Your task to perform on an android device: turn on priority inbox in the gmail app Image 0: 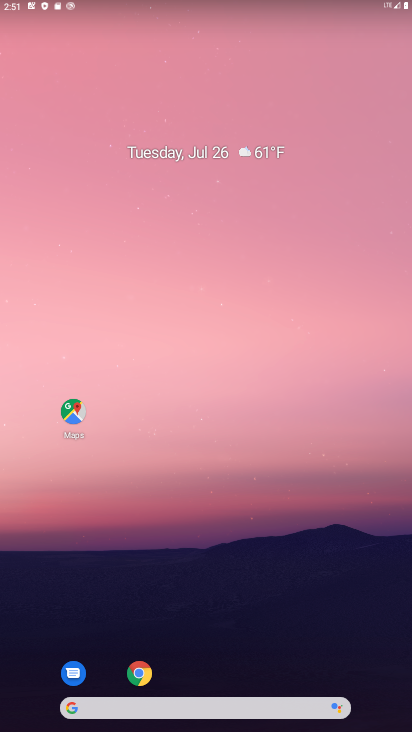
Step 0: drag from (178, 479) to (235, 38)
Your task to perform on an android device: turn on priority inbox in the gmail app Image 1: 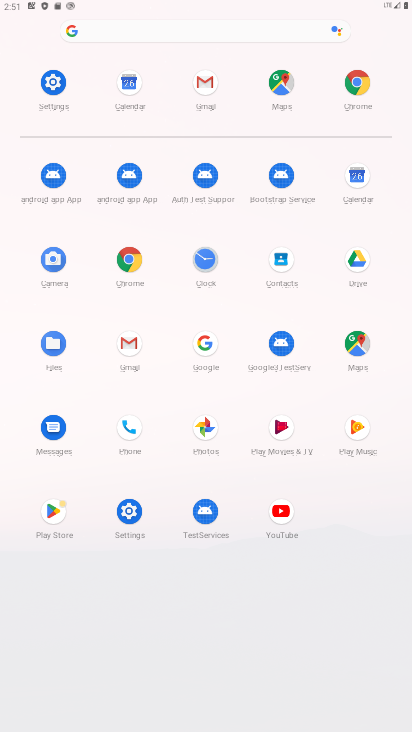
Step 1: click (131, 339)
Your task to perform on an android device: turn on priority inbox in the gmail app Image 2: 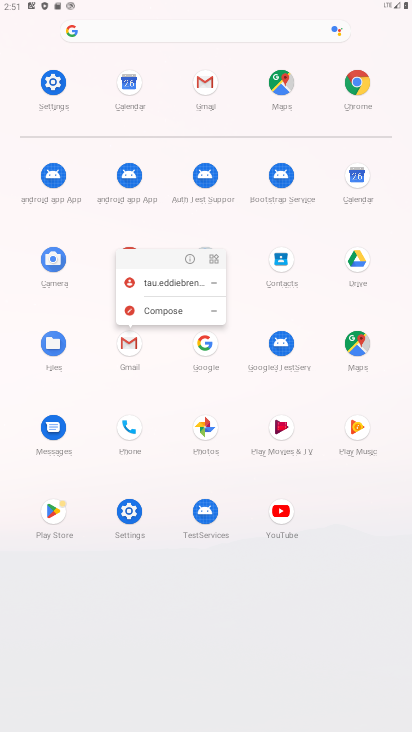
Step 2: click (173, 255)
Your task to perform on an android device: turn on priority inbox in the gmail app Image 3: 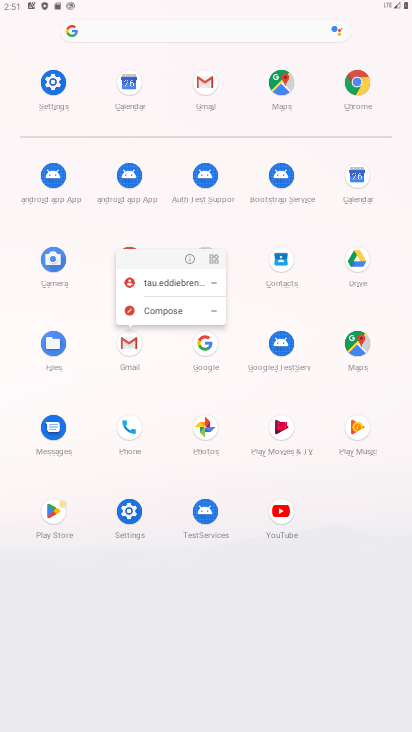
Step 3: click (179, 255)
Your task to perform on an android device: turn on priority inbox in the gmail app Image 4: 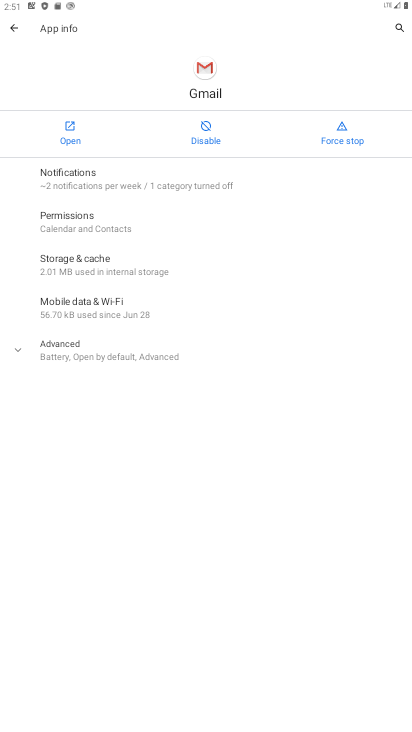
Step 4: click (64, 131)
Your task to perform on an android device: turn on priority inbox in the gmail app Image 5: 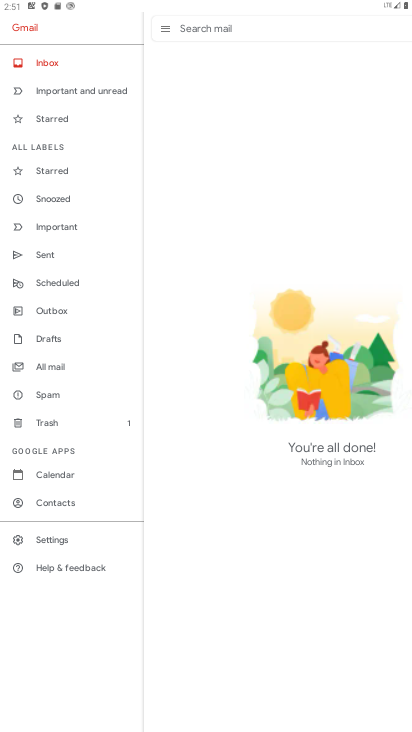
Step 5: click (47, 531)
Your task to perform on an android device: turn on priority inbox in the gmail app Image 6: 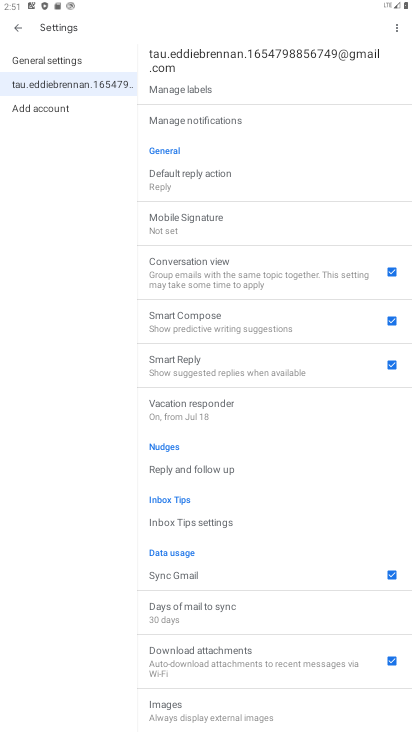
Step 6: drag from (203, 131) to (316, 731)
Your task to perform on an android device: turn on priority inbox in the gmail app Image 7: 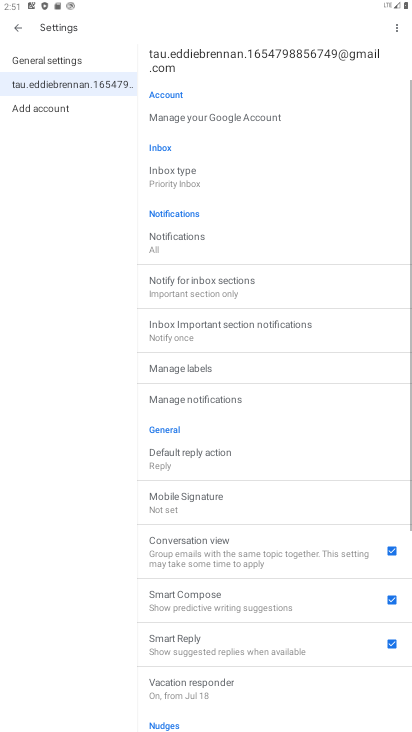
Step 7: click (193, 160)
Your task to perform on an android device: turn on priority inbox in the gmail app Image 8: 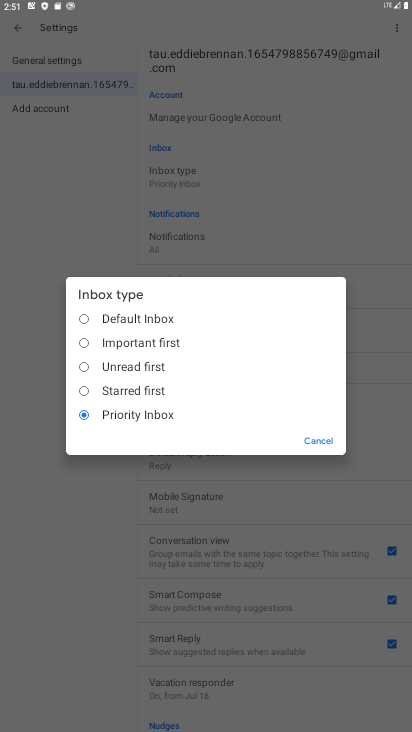
Step 8: task complete